Your task to perform on an android device: Go to settings Image 0: 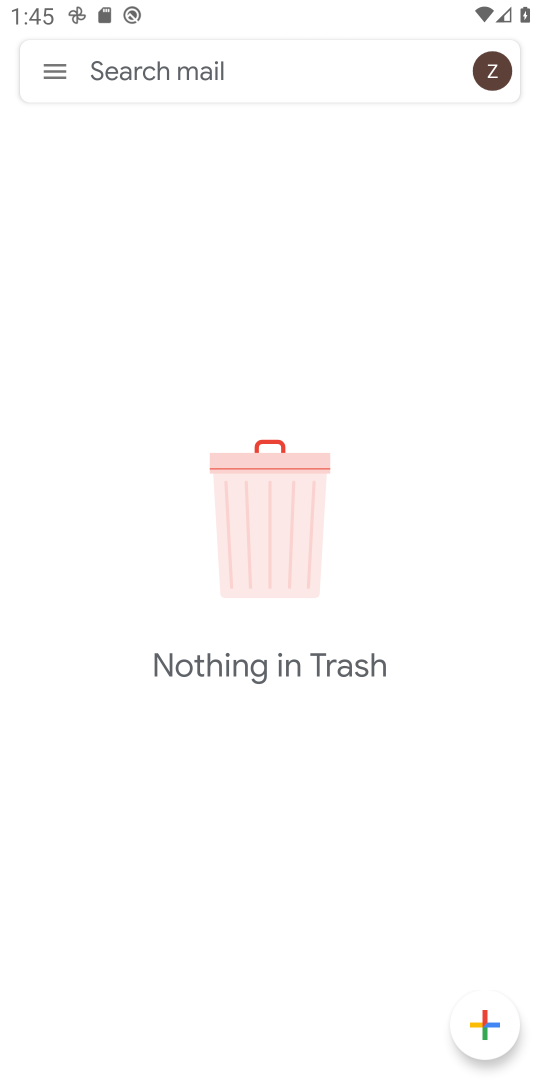
Step 0: press home button
Your task to perform on an android device: Go to settings Image 1: 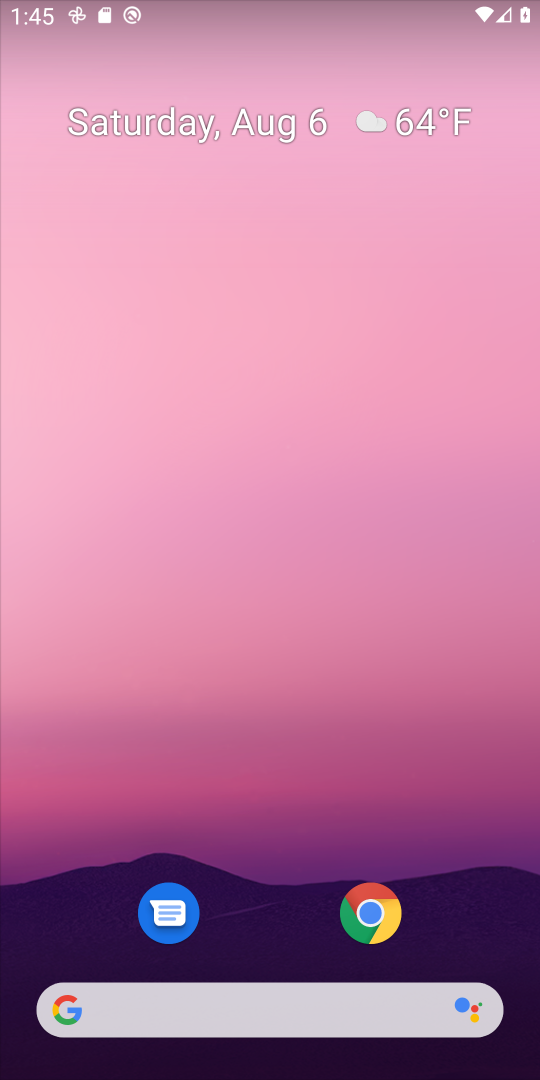
Step 1: drag from (446, 923) to (462, 260)
Your task to perform on an android device: Go to settings Image 2: 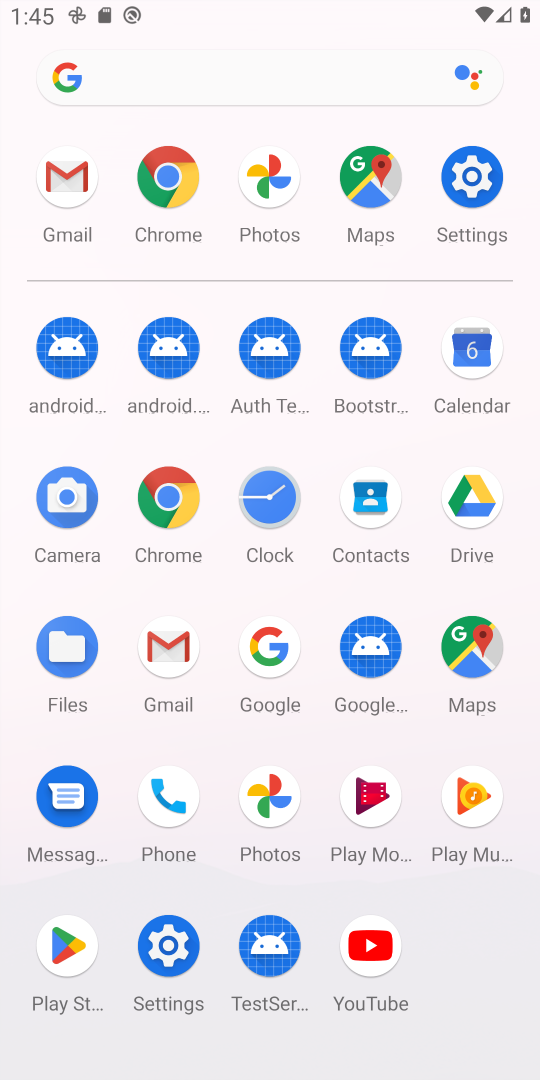
Step 2: click (465, 176)
Your task to perform on an android device: Go to settings Image 3: 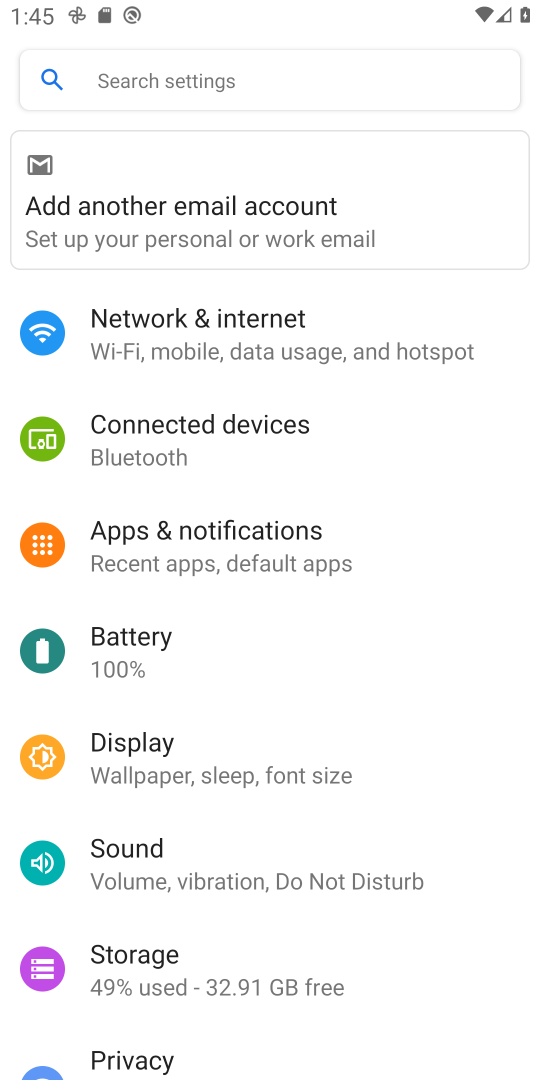
Step 3: task complete